Your task to perform on an android device: open wifi settings Image 0: 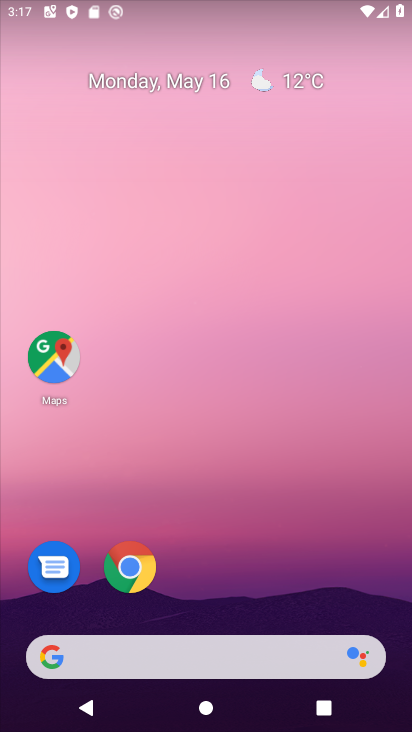
Step 0: drag from (166, 711) to (350, 124)
Your task to perform on an android device: open wifi settings Image 1: 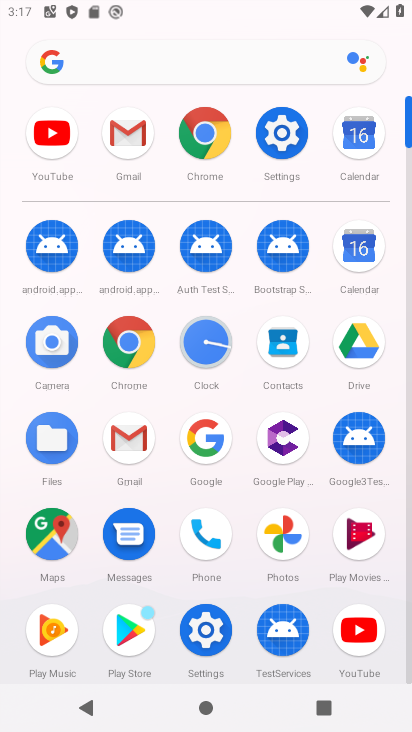
Step 1: click (266, 113)
Your task to perform on an android device: open wifi settings Image 2: 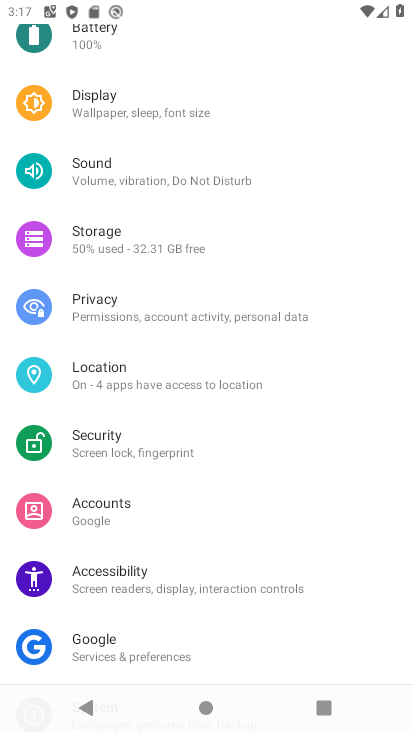
Step 2: drag from (198, 161) to (223, 640)
Your task to perform on an android device: open wifi settings Image 3: 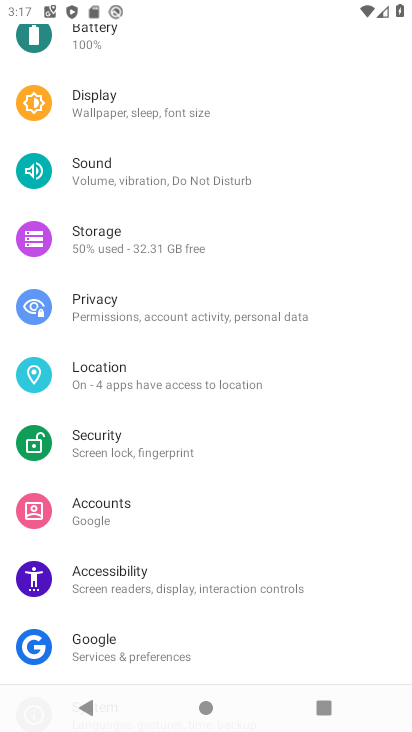
Step 3: drag from (244, 164) to (212, 667)
Your task to perform on an android device: open wifi settings Image 4: 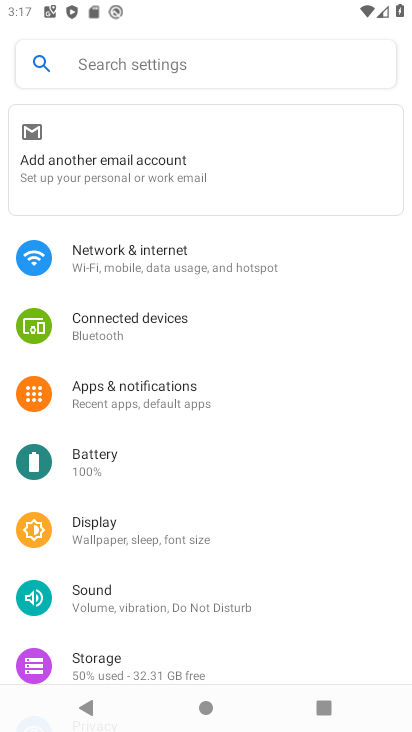
Step 4: click (119, 250)
Your task to perform on an android device: open wifi settings Image 5: 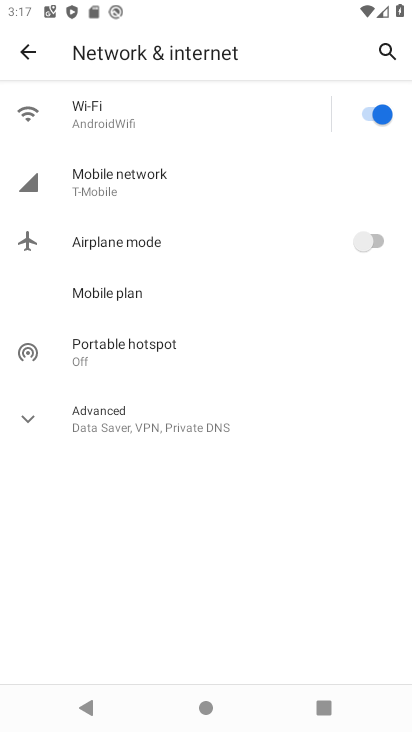
Step 5: click (212, 121)
Your task to perform on an android device: open wifi settings Image 6: 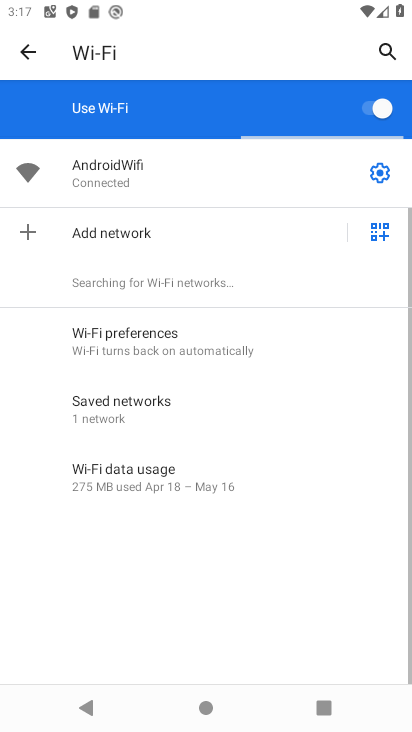
Step 6: click (380, 168)
Your task to perform on an android device: open wifi settings Image 7: 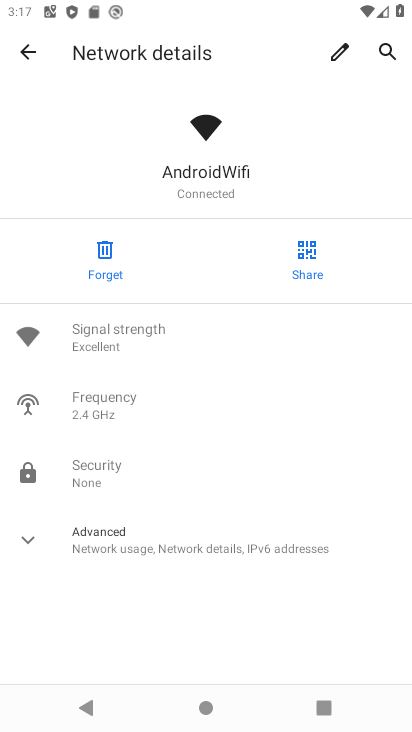
Step 7: task complete